Your task to perform on an android device: Open sound settings Image 0: 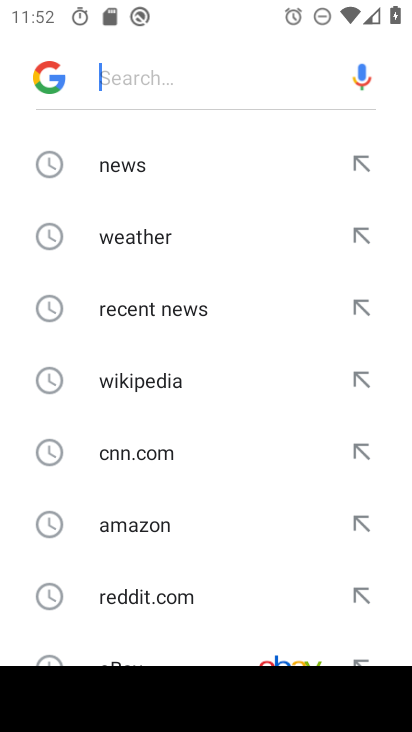
Step 0: press home button
Your task to perform on an android device: Open sound settings Image 1: 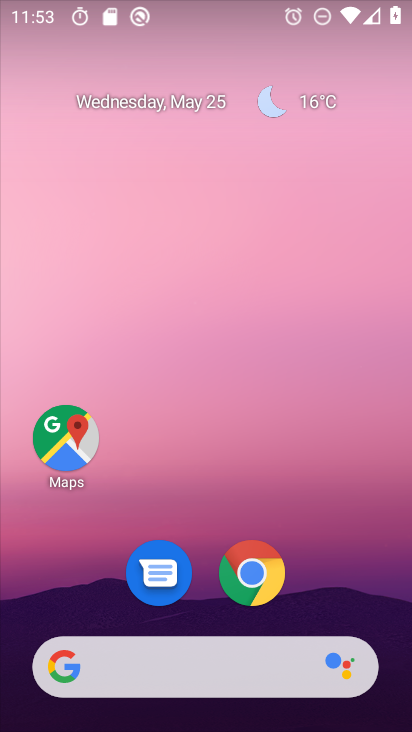
Step 1: drag from (367, 613) to (381, 14)
Your task to perform on an android device: Open sound settings Image 2: 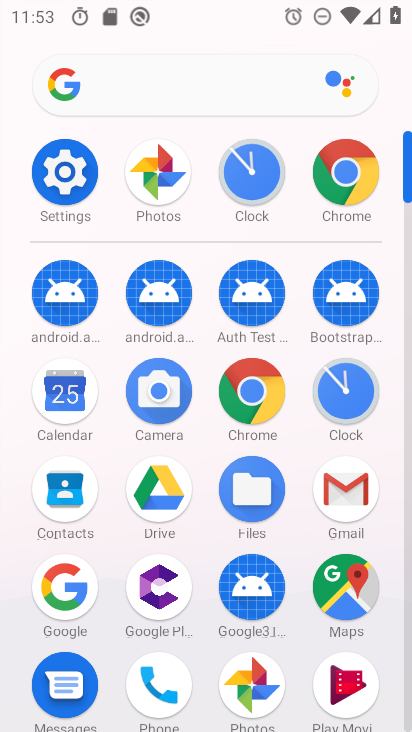
Step 2: click (57, 183)
Your task to perform on an android device: Open sound settings Image 3: 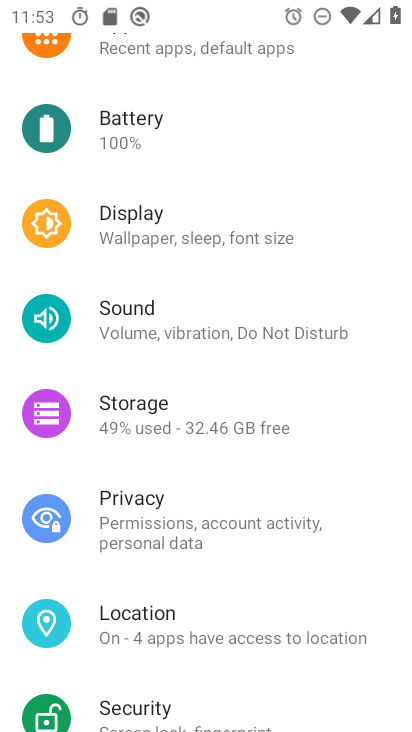
Step 3: click (121, 336)
Your task to perform on an android device: Open sound settings Image 4: 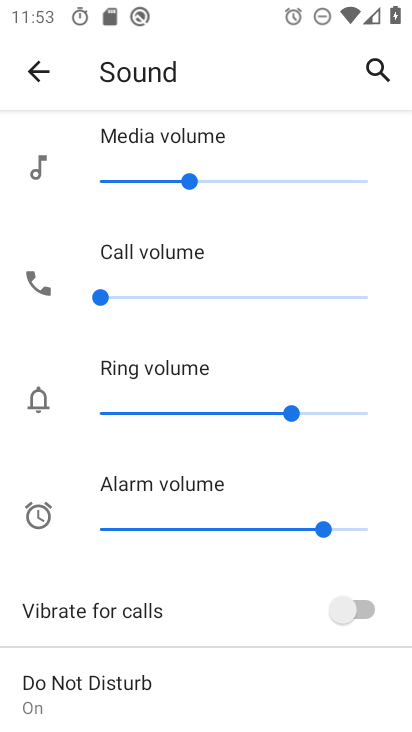
Step 4: task complete